Your task to perform on an android device: turn off notifications settings in the gmail app Image 0: 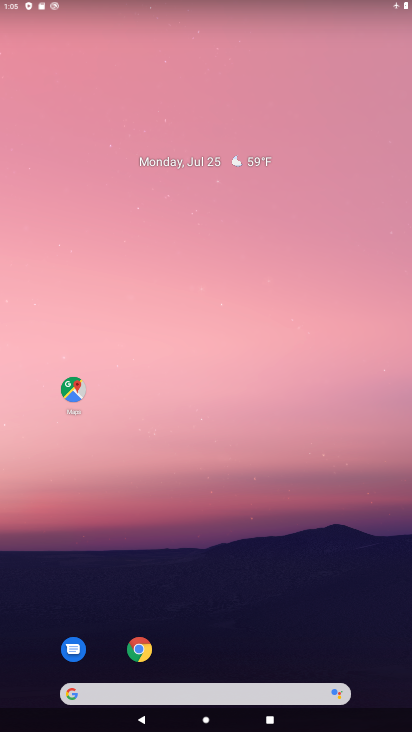
Step 0: drag from (177, 693) to (214, 135)
Your task to perform on an android device: turn off notifications settings in the gmail app Image 1: 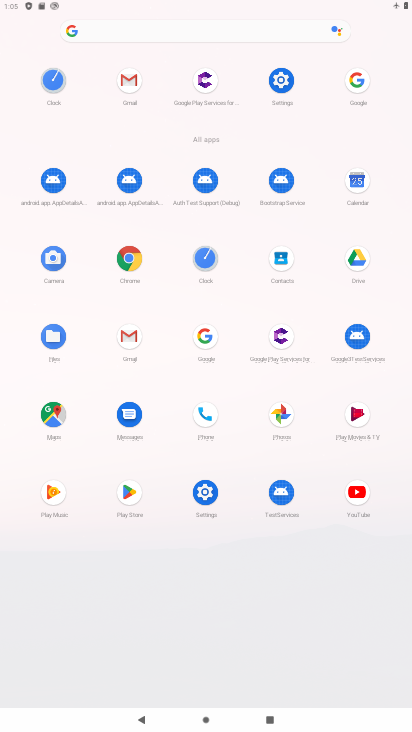
Step 1: click (128, 336)
Your task to perform on an android device: turn off notifications settings in the gmail app Image 2: 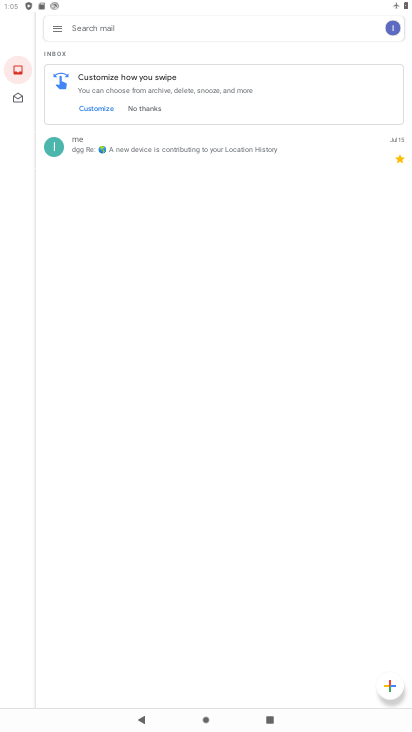
Step 2: click (56, 28)
Your task to perform on an android device: turn off notifications settings in the gmail app Image 3: 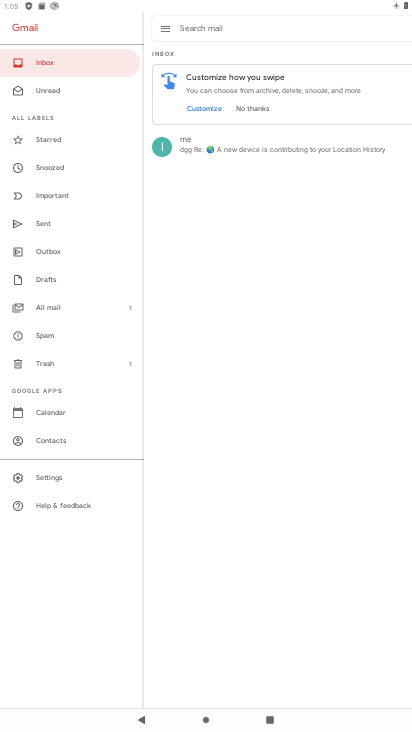
Step 3: click (48, 479)
Your task to perform on an android device: turn off notifications settings in the gmail app Image 4: 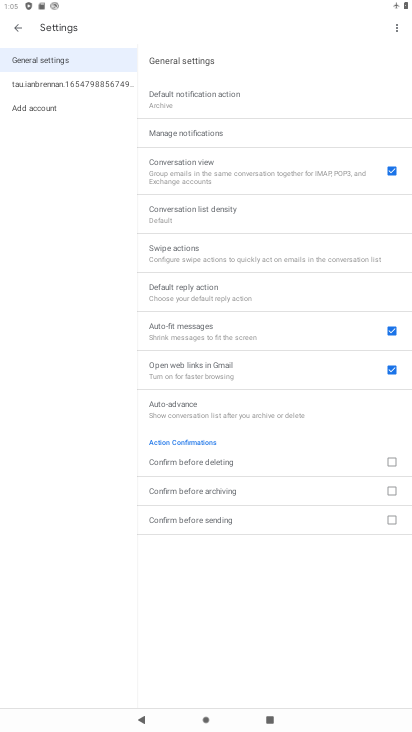
Step 4: click (214, 134)
Your task to perform on an android device: turn off notifications settings in the gmail app Image 5: 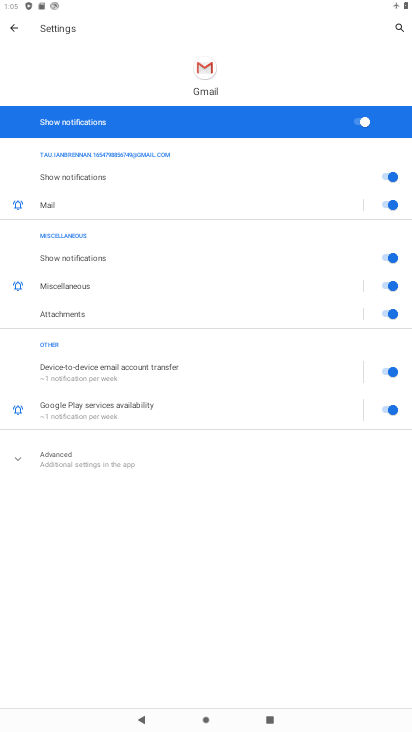
Step 5: click (360, 120)
Your task to perform on an android device: turn off notifications settings in the gmail app Image 6: 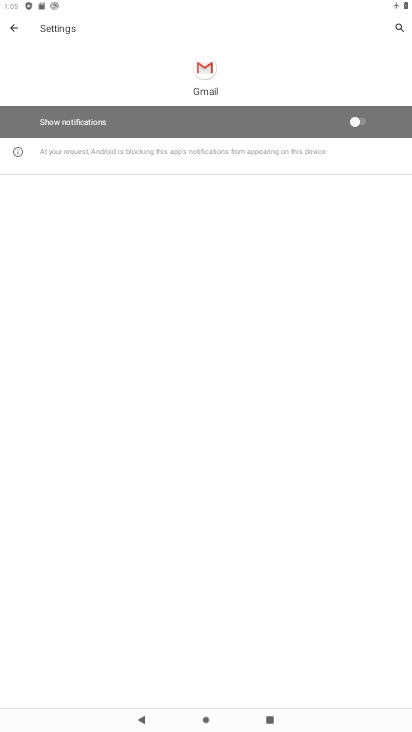
Step 6: task complete